Your task to perform on an android device: open app "The Home Depot" (install if not already installed) Image 0: 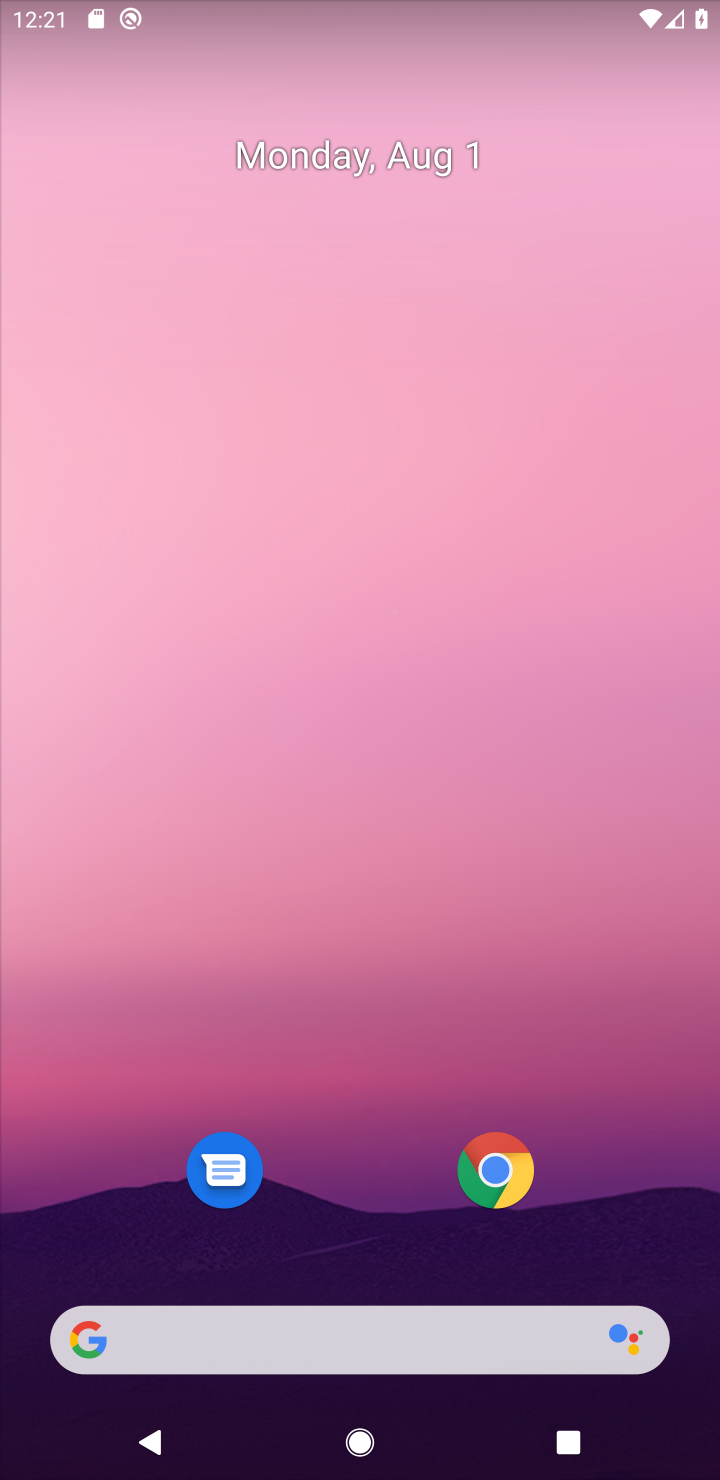
Step 0: drag from (604, 1189) to (244, 95)
Your task to perform on an android device: open app "The Home Depot" (install if not already installed) Image 1: 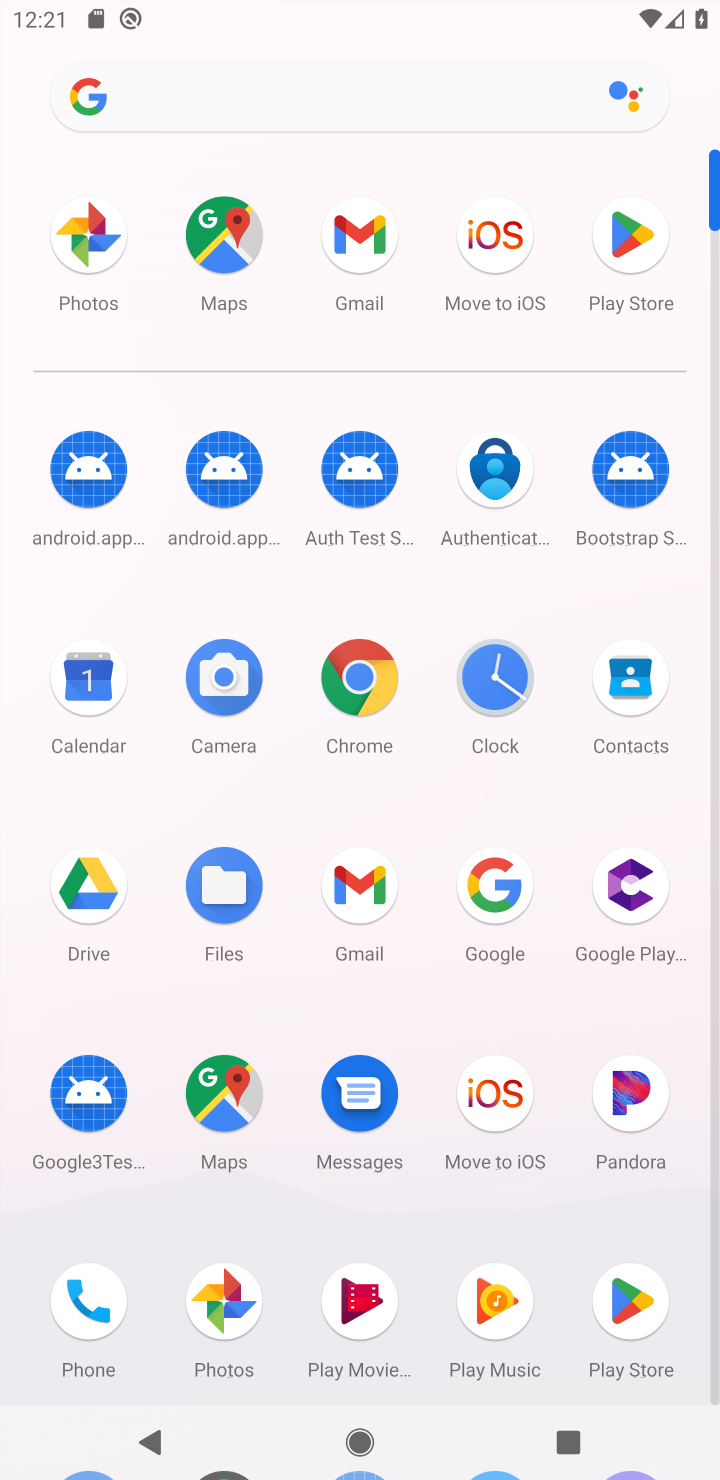
Step 1: click (628, 235)
Your task to perform on an android device: open app "The Home Depot" (install if not already installed) Image 2: 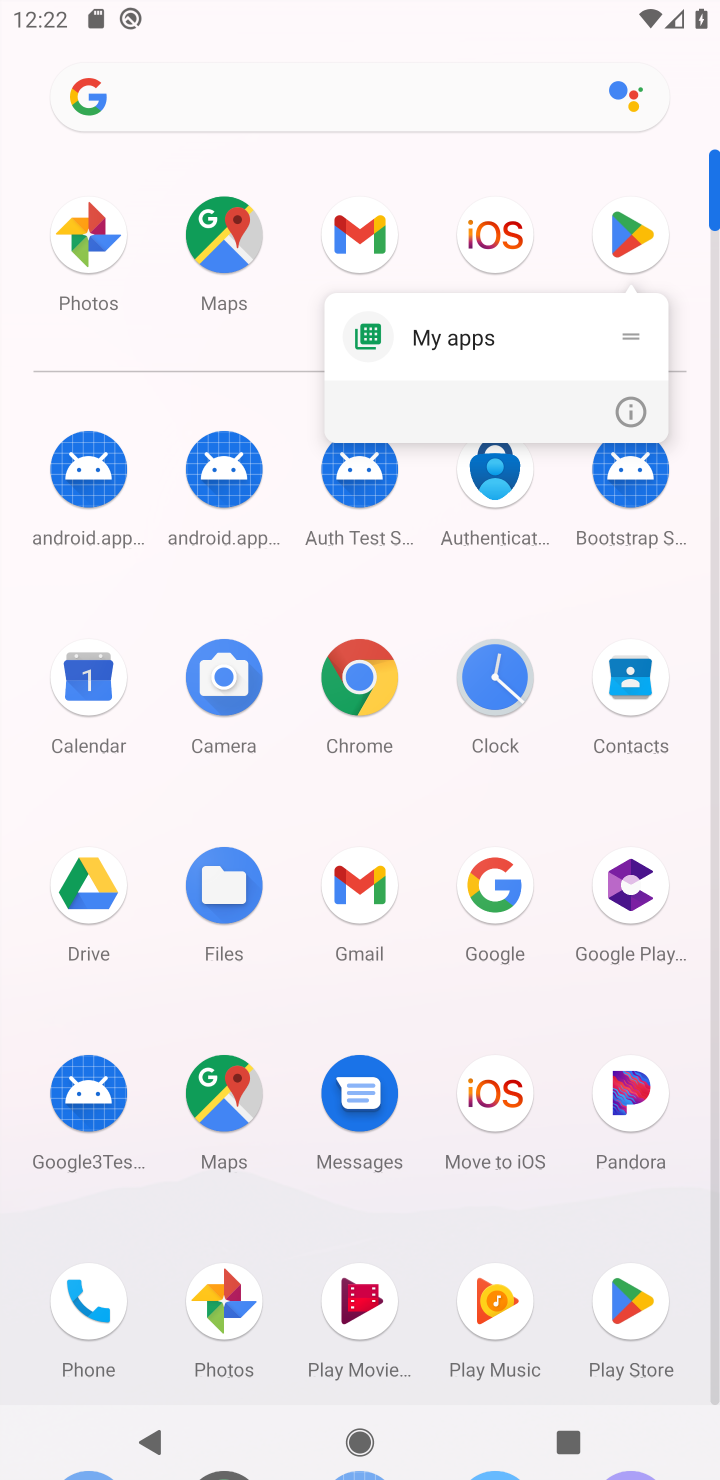
Step 2: click (608, 231)
Your task to perform on an android device: open app "The Home Depot" (install if not already installed) Image 3: 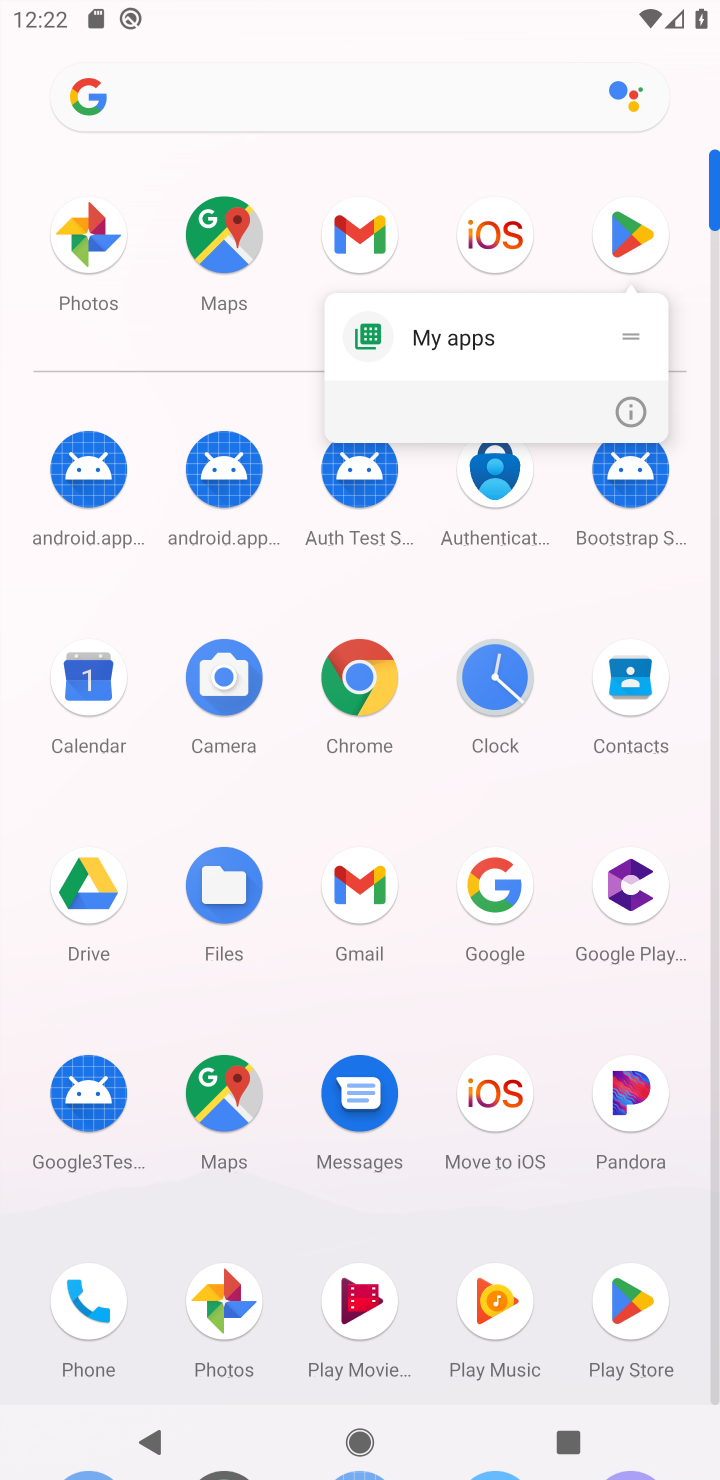
Step 3: click (631, 251)
Your task to perform on an android device: open app "The Home Depot" (install if not already installed) Image 4: 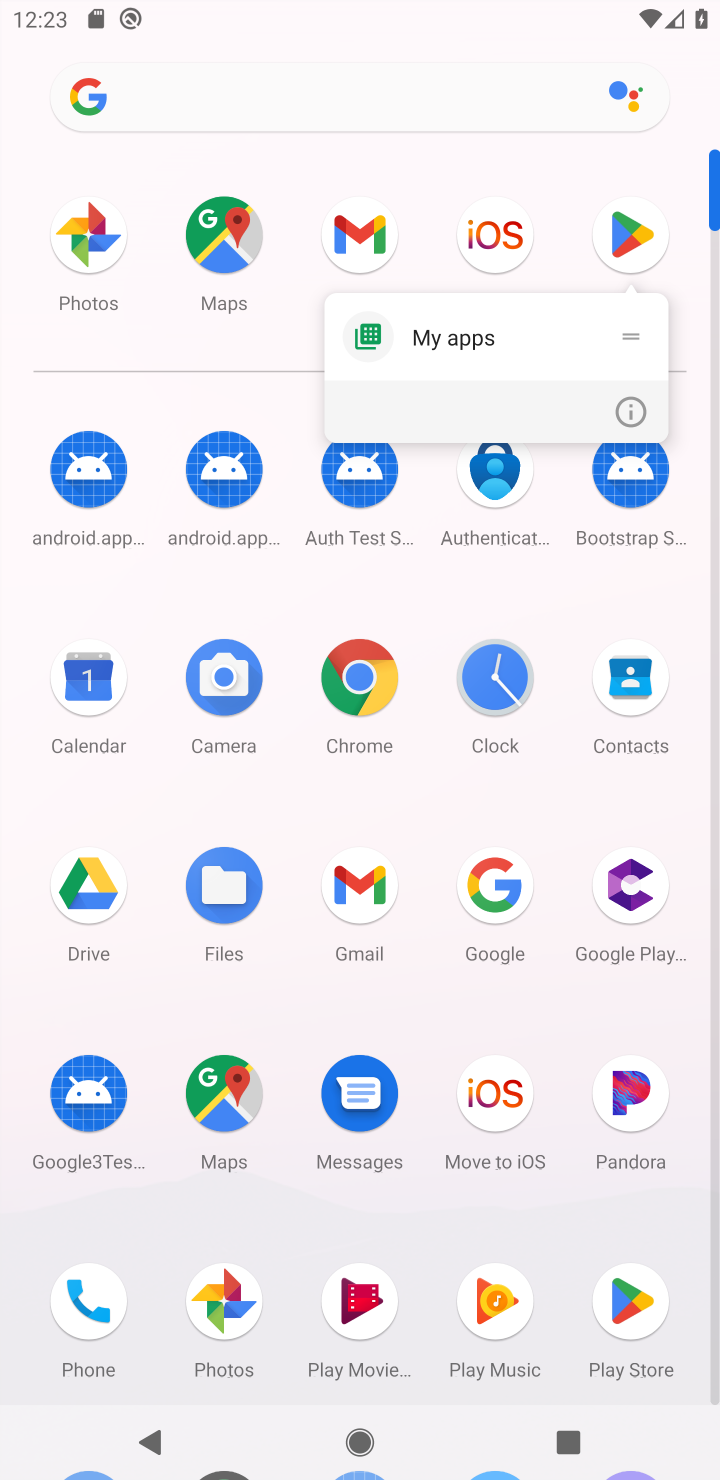
Step 4: click (633, 253)
Your task to perform on an android device: open app "The Home Depot" (install if not already installed) Image 5: 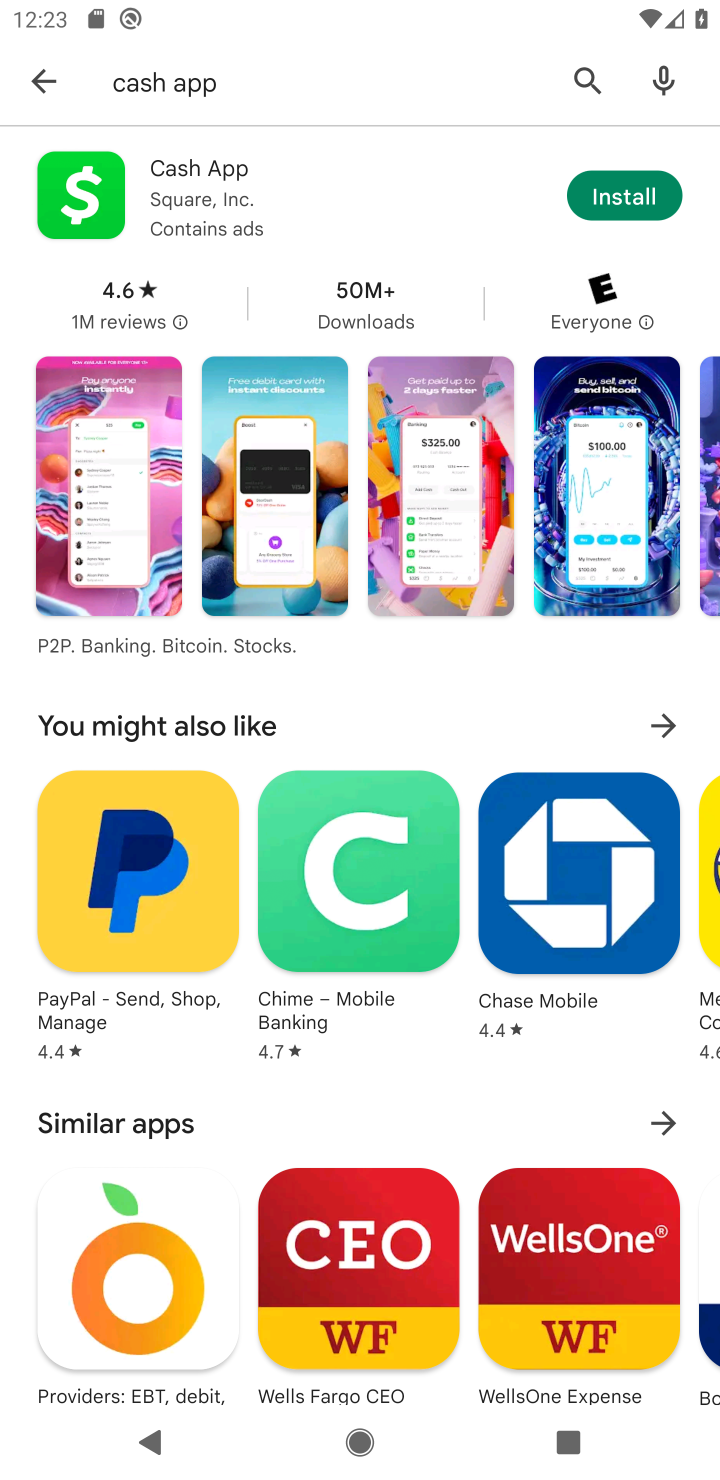
Step 5: press back button
Your task to perform on an android device: open app "The Home Depot" (install if not already installed) Image 6: 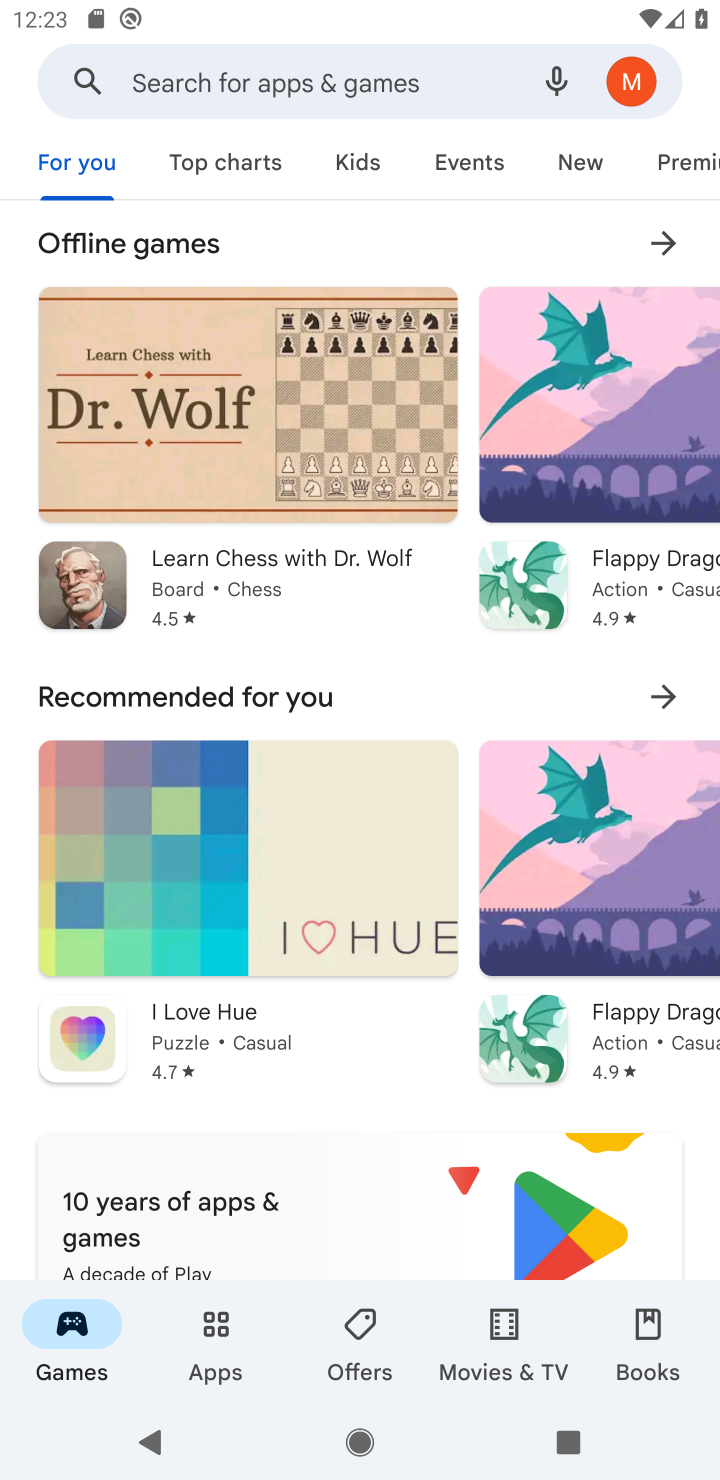
Step 6: click (213, 80)
Your task to perform on an android device: open app "The Home Depot" (install if not already installed) Image 7: 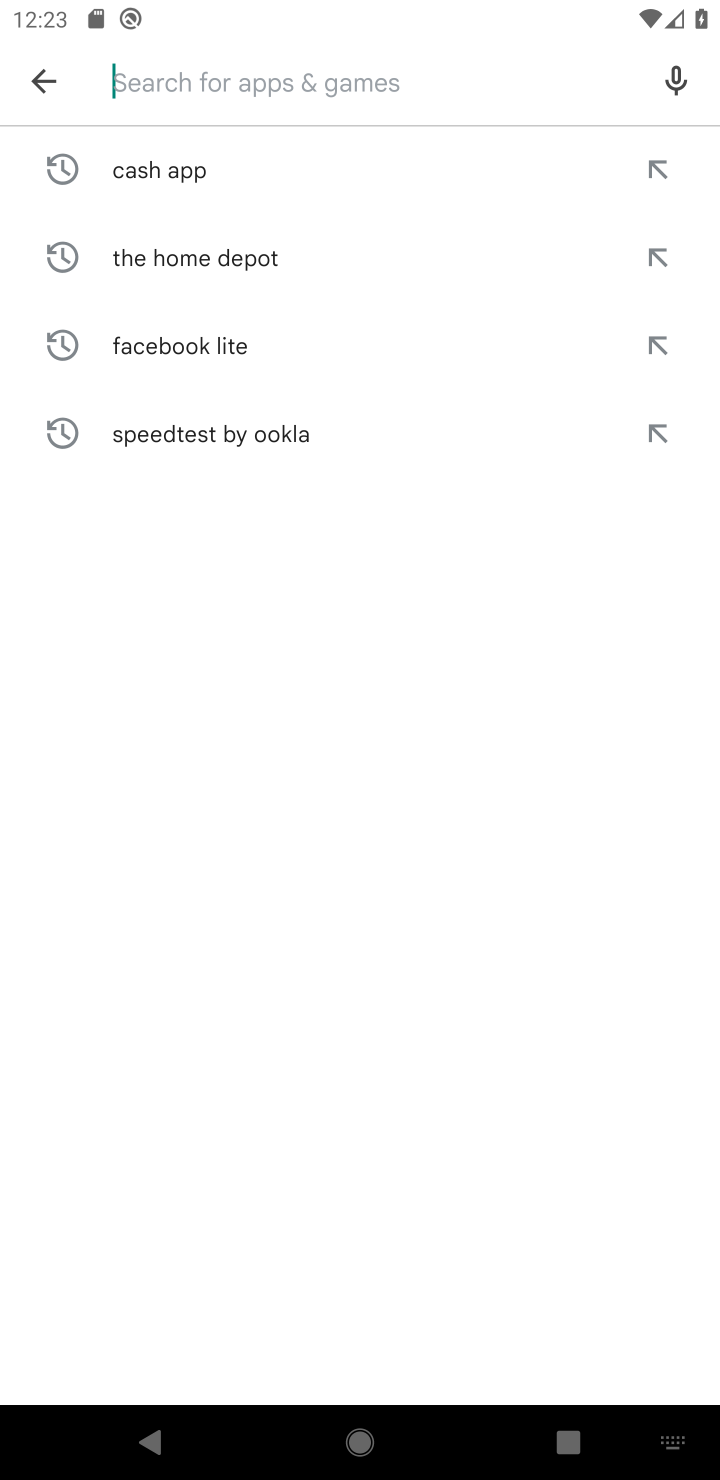
Step 7: type "The Home Depot"
Your task to perform on an android device: open app "The Home Depot" (install if not already installed) Image 8: 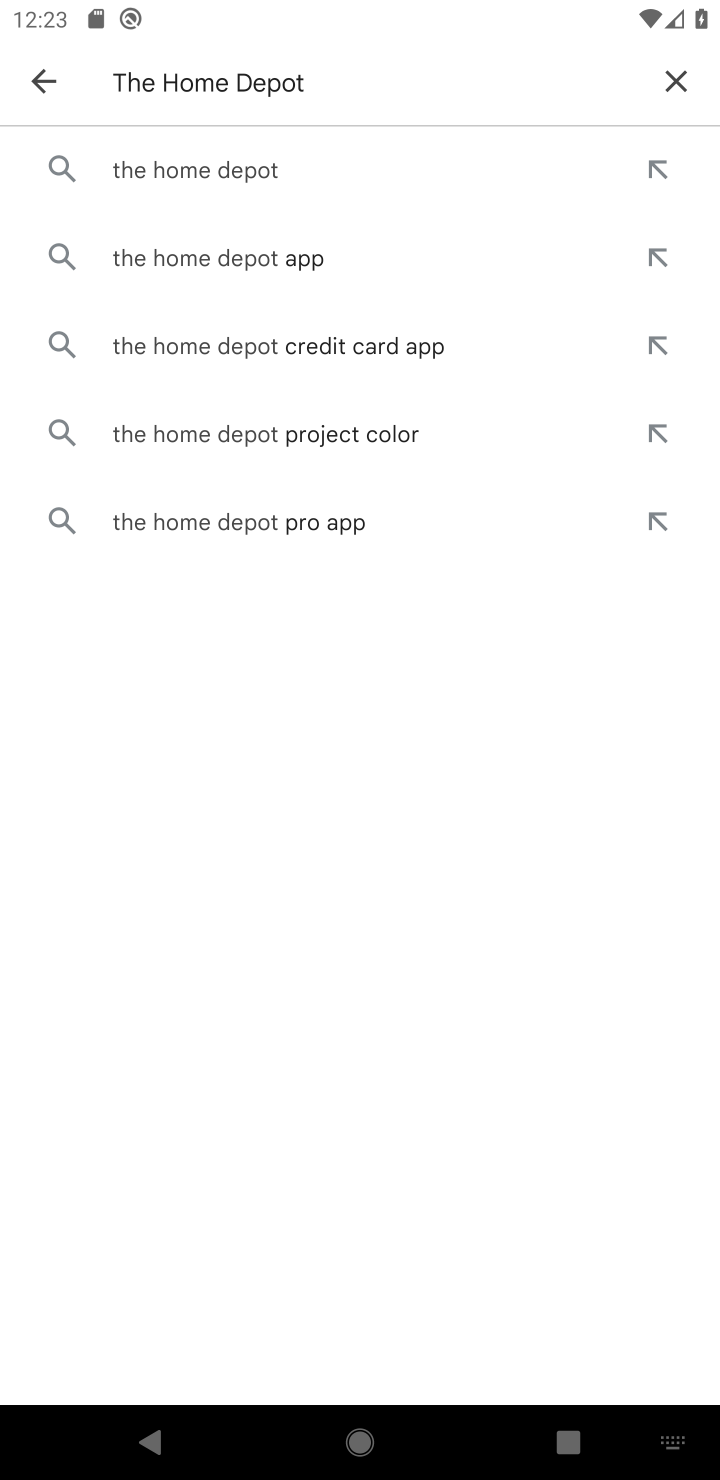
Step 8: click (192, 173)
Your task to perform on an android device: open app "The Home Depot" (install if not already installed) Image 9: 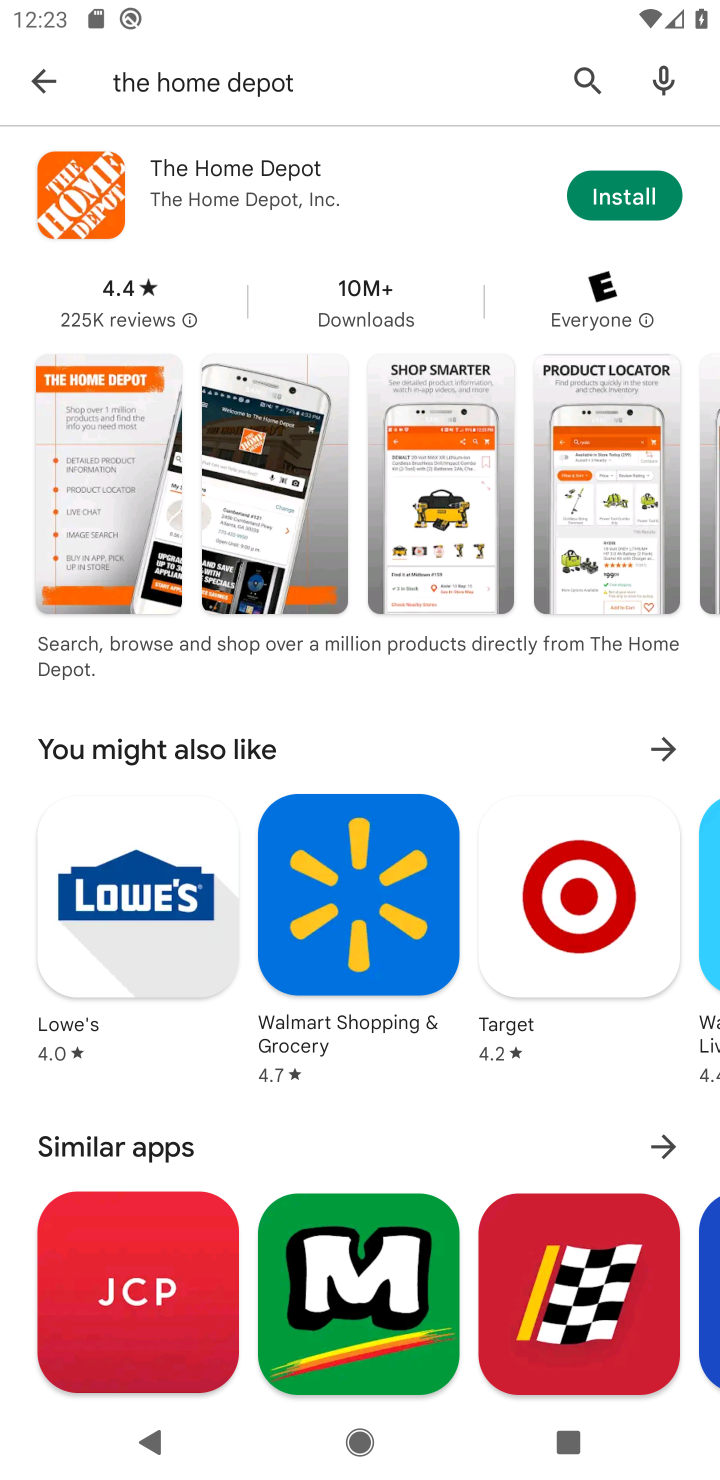
Step 9: task complete